Your task to perform on an android device: Open my contact list Image 0: 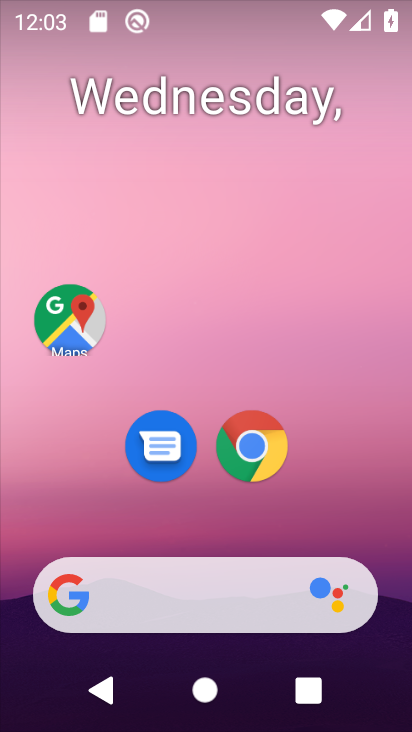
Step 0: drag from (371, 79) to (349, 25)
Your task to perform on an android device: Open my contact list Image 1: 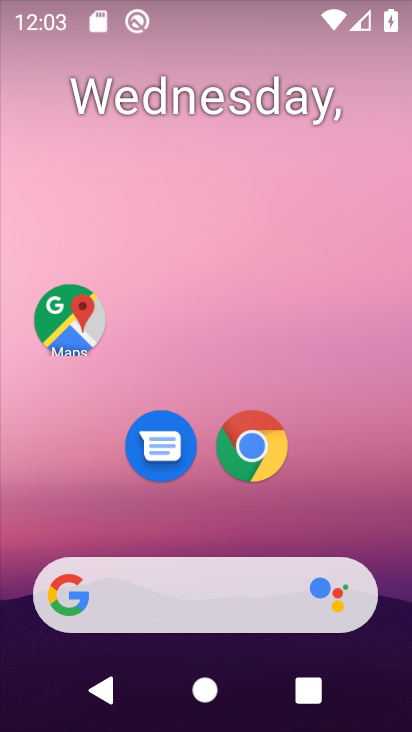
Step 1: drag from (367, 482) to (386, 18)
Your task to perform on an android device: Open my contact list Image 2: 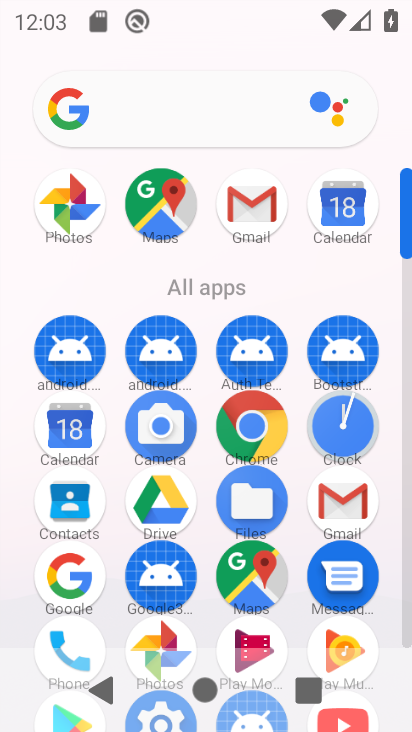
Step 2: click (62, 509)
Your task to perform on an android device: Open my contact list Image 3: 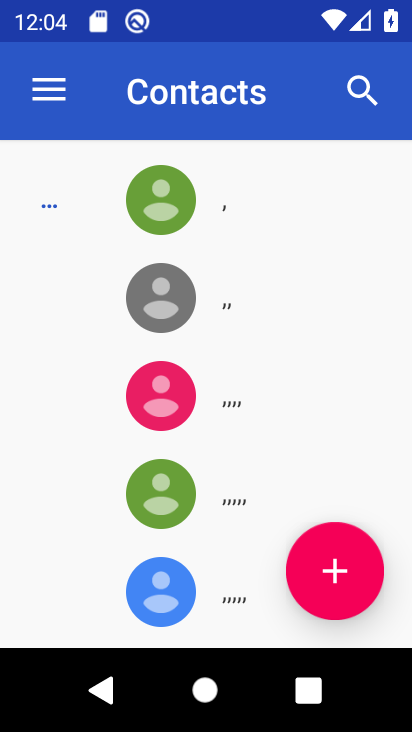
Step 3: task complete